Your task to perform on an android device: When is my next appointment? Image 0: 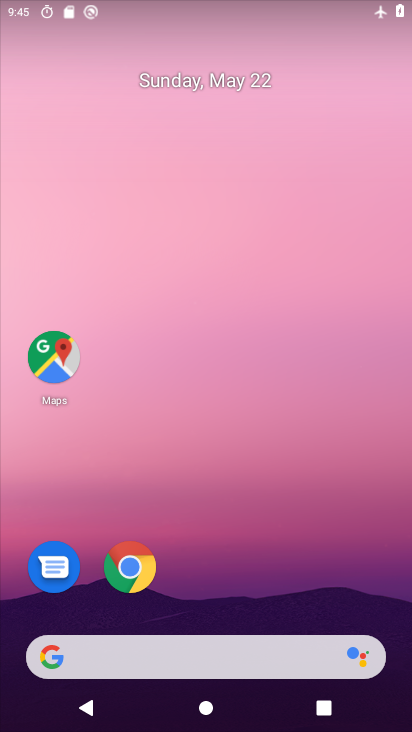
Step 0: drag from (228, 605) to (250, 13)
Your task to perform on an android device: When is my next appointment? Image 1: 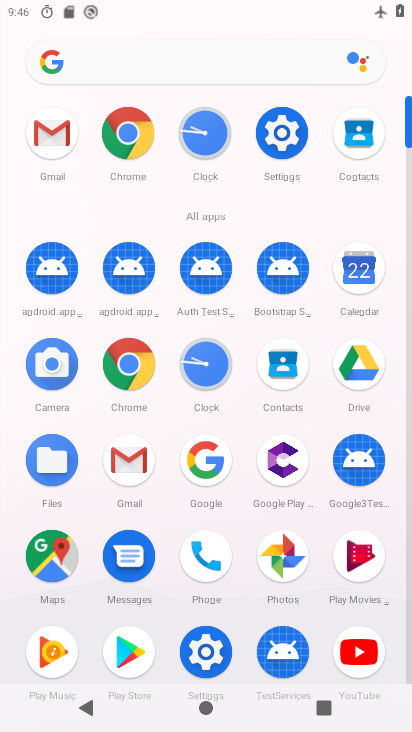
Step 1: click (358, 266)
Your task to perform on an android device: When is my next appointment? Image 2: 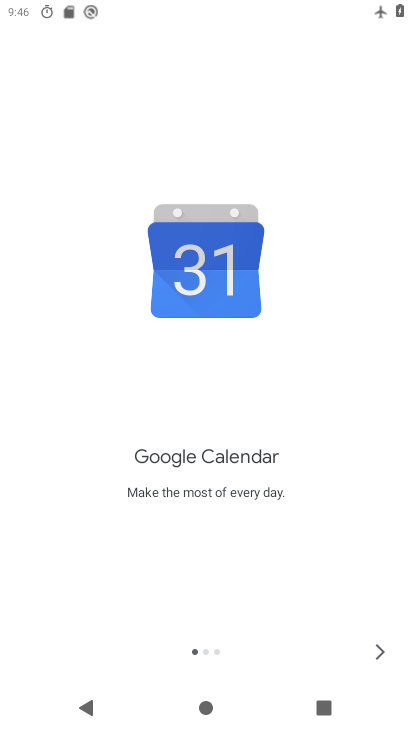
Step 2: click (375, 647)
Your task to perform on an android device: When is my next appointment? Image 3: 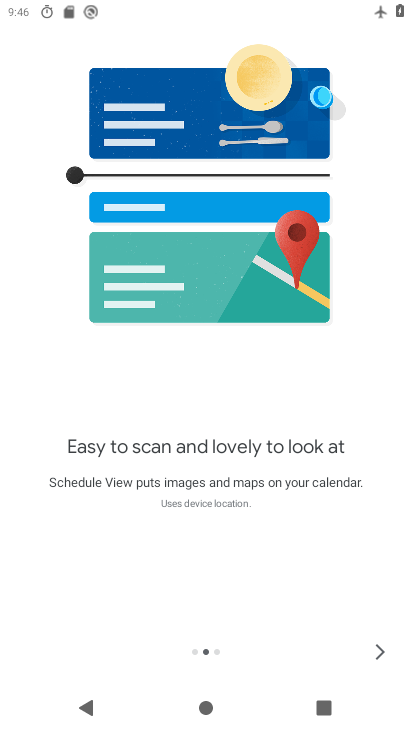
Step 3: click (375, 647)
Your task to perform on an android device: When is my next appointment? Image 4: 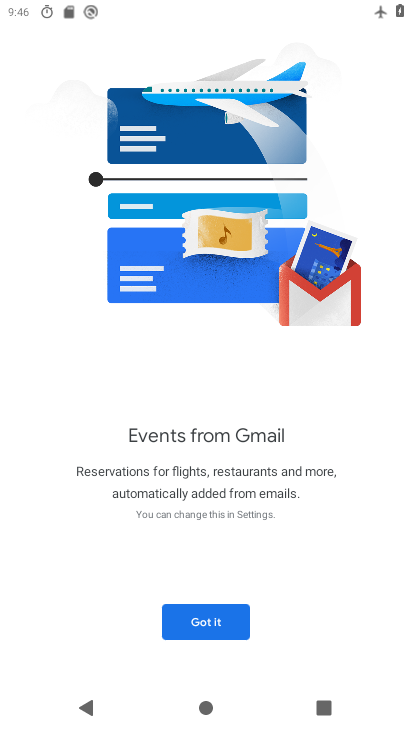
Step 4: click (200, 622)
Your task to perform on an android device: When is my next appointment? Image 5: 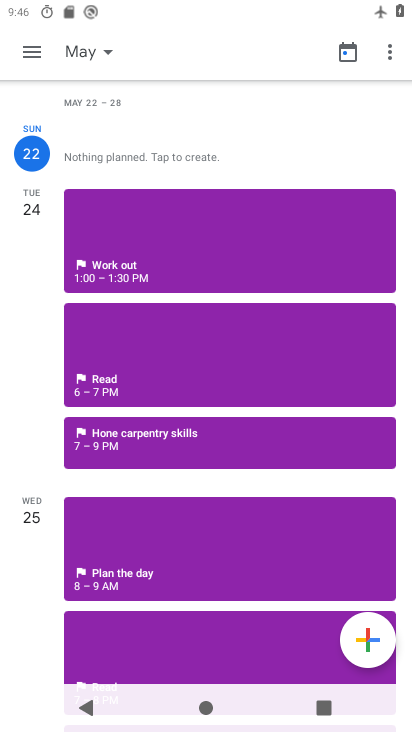
Step 5: task complete